Your task to perform on an android device: What is the news today? Image 0: 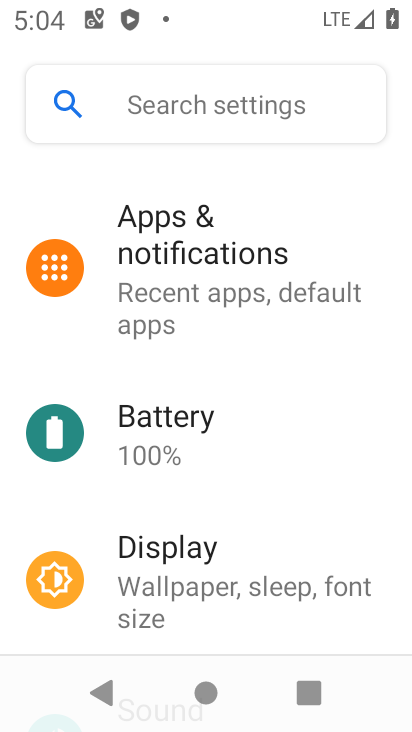
Step 0: press home button
Your task to perform on an android device: What is the news today? Image 1: 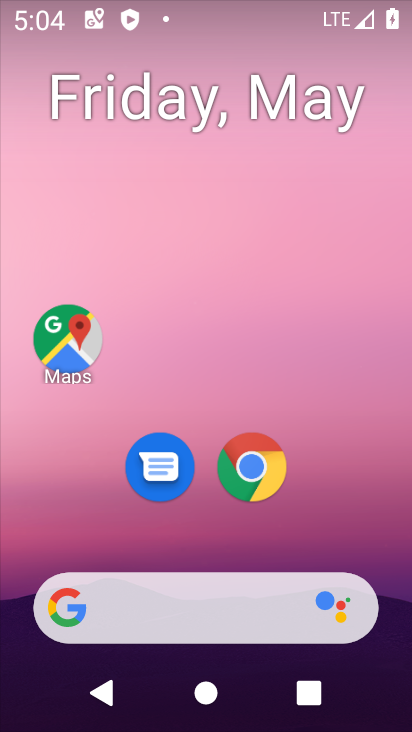
Step 1: click (268, 606)
Your task to perform on an android device: What is the news today? Image 2: 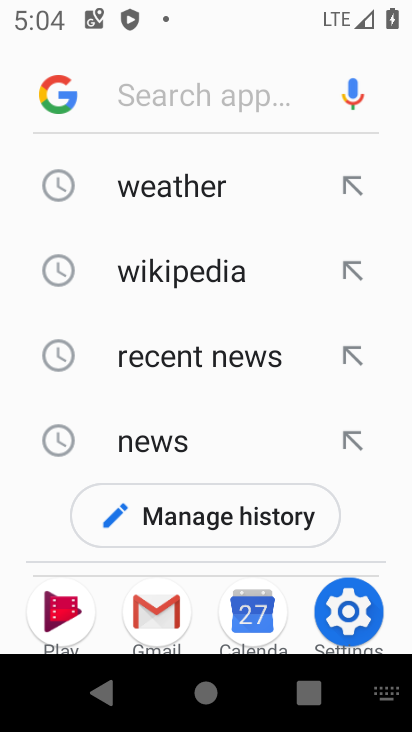
Step 2: type "news today"
Your task to perform on an android device: What is the news today? Image 3: 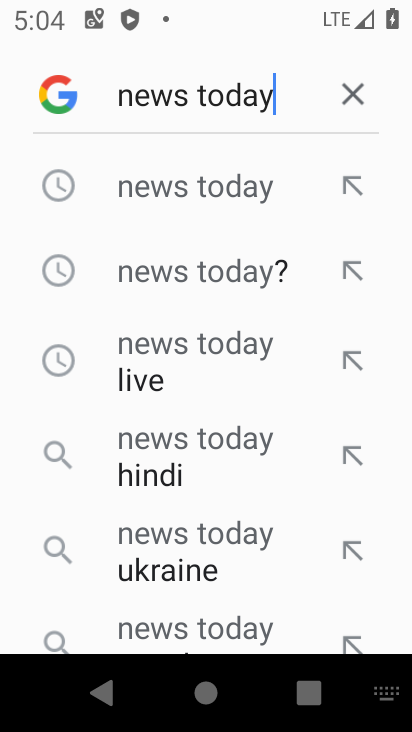
Step 3: click (157, 197)
Your task to perform on an android device: What is the news today? Image 4: 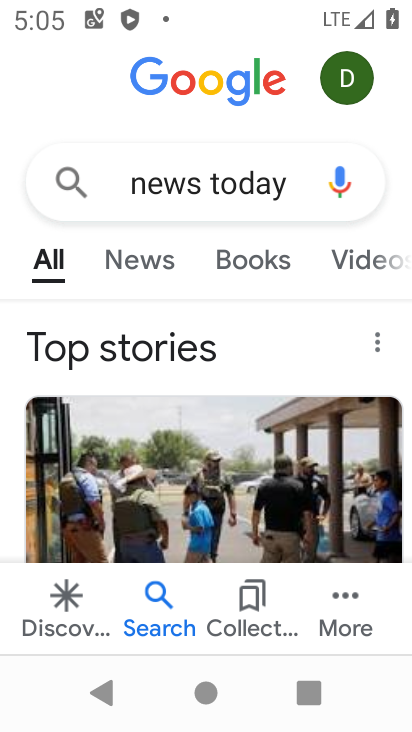
Step 4: click (181, 534)
Your task to perform on an android device: What is the news today? Image 5: 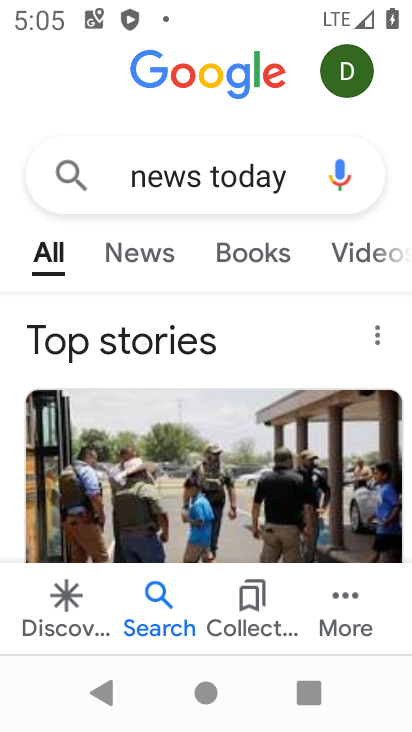
Step 5: task complete